Your task to perform on an android device: see sites visited before in the chrome app Image 0: 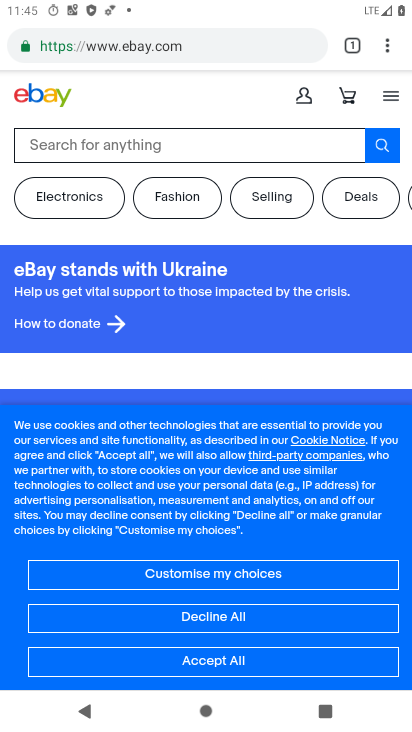
Step 0: press home button
Your task to perform on an android device: see sites visited before in the chrome app Image 1: 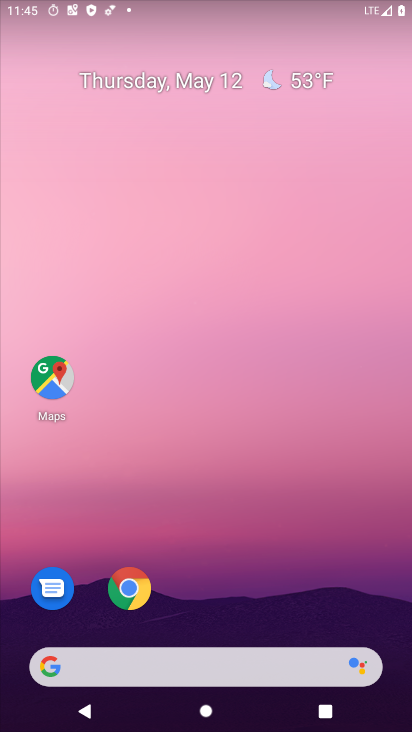
Step 1: drag from (292, 513) to (306, 116)
Your task to perform on an android device: see sites visited before in the chrome app Image 2: 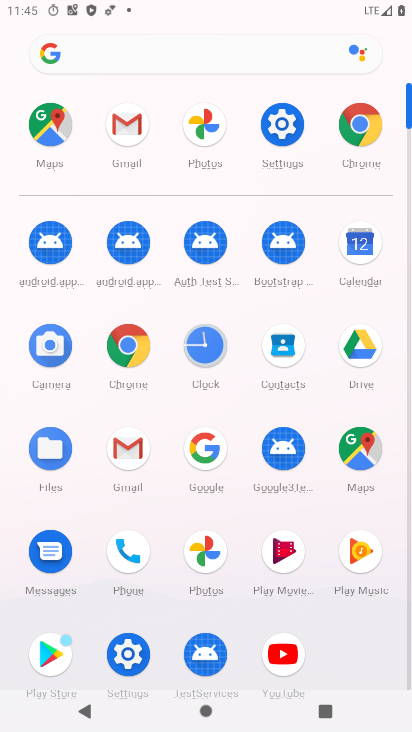
Step 2: click (135, 340)
Your task to perform on an android device: see sites visited before in the chrome app Image 3: 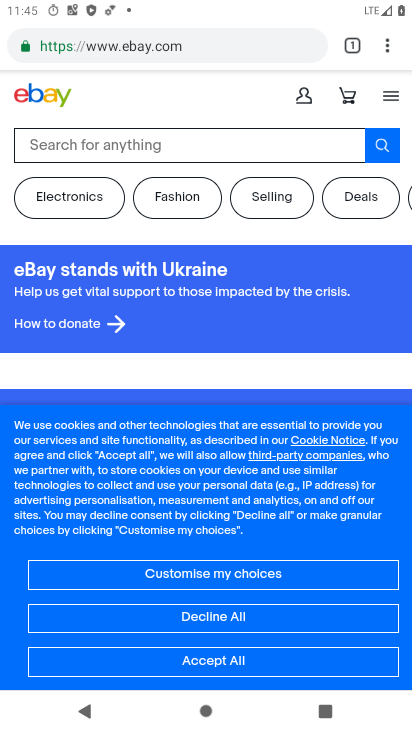
Step 3: click (383, 44)
Your task to perform on an android device: see sites visited before in the chrome app Image 4: 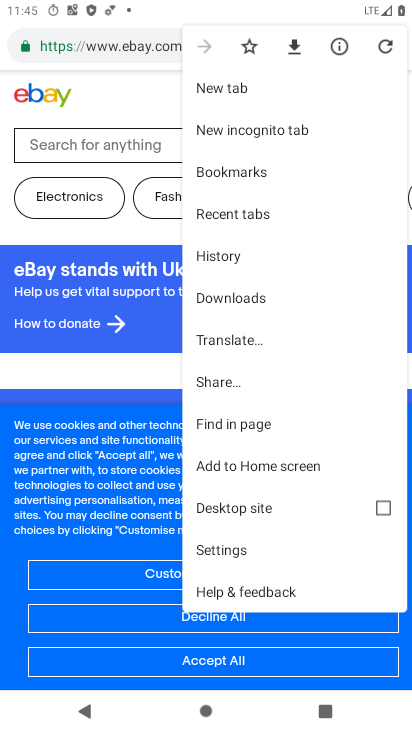
Step 4: drag from (236, 512) to (293, 320)
Your task to perform on an android device: see sites visited before in the chrome app Image 5: 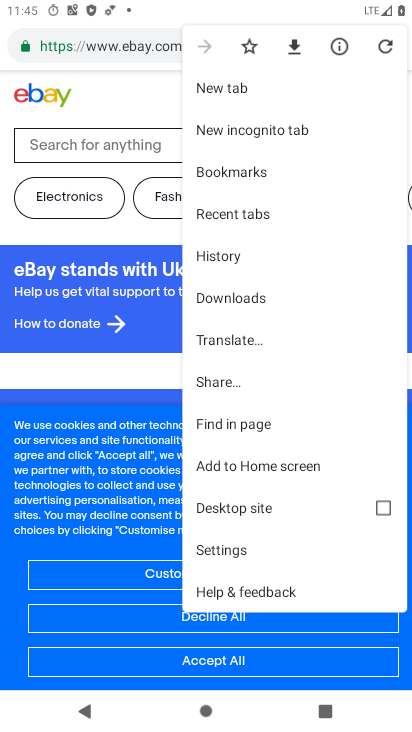
Step 5: drag from (258, 213) to (220, 260)
Your task to perform on an android device: see sites visited before in the chrome app Image 6: 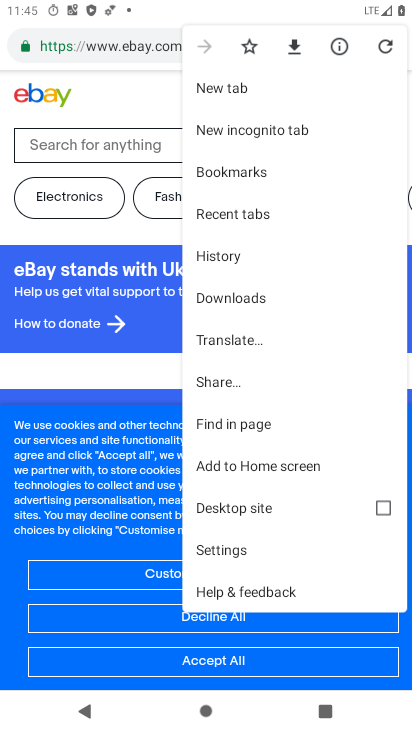
Step 6: click (221, 256)
Your task to perform on an android device: see sites visited before in the chrome app Image 7: 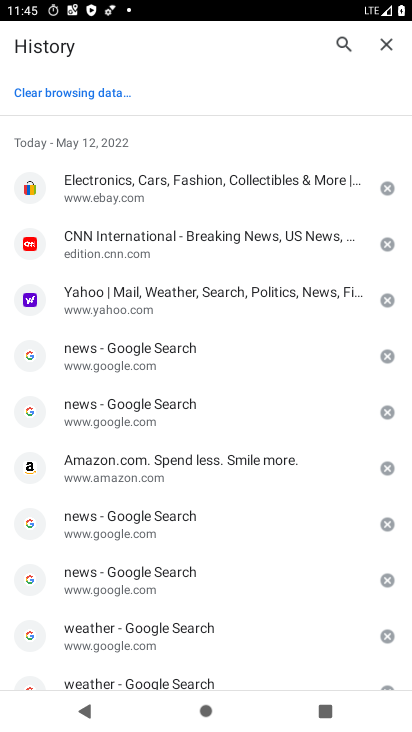
Step 7: task complete